Your task to perform on an android device: open sync settings in chrome Image 0: 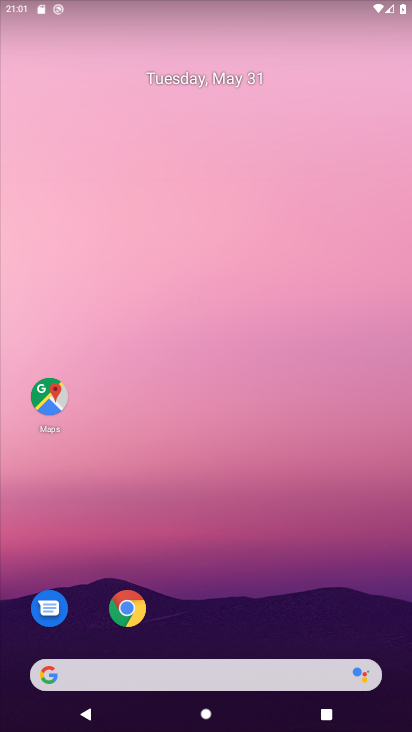
Step 0: click (128, 608)
Your task to perform on an android device: open sync settings in chrome Image 1: 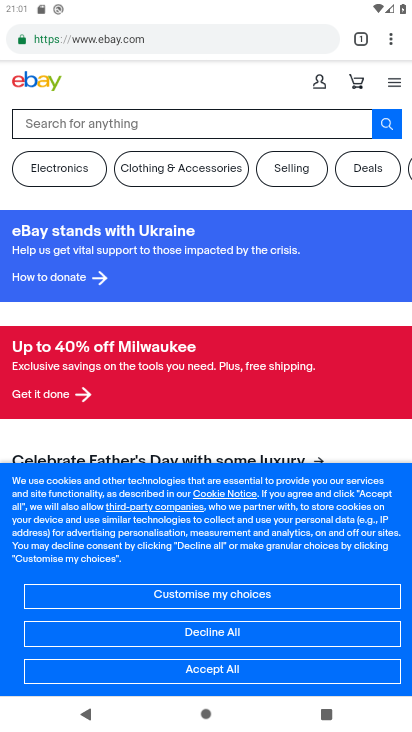
Step 1: click (391, 39)
Your task to perform on an android device: open sync settings in chrome Image 2: 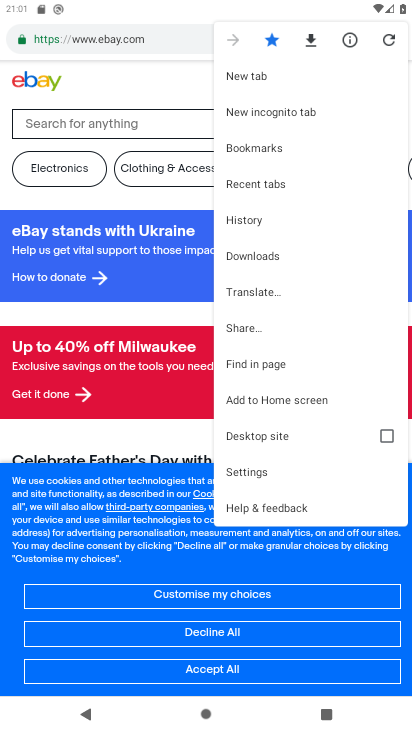
Step 2: click (253, 478)
Your task to perform on an android device: open sync settings in chrome Image 3: 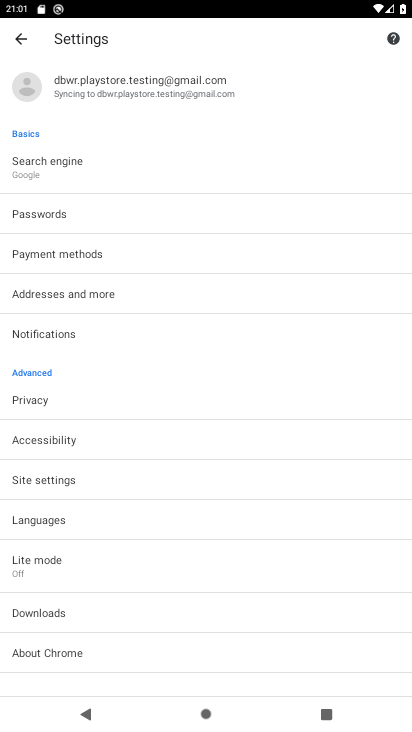
Step 3: click (50, 482)
Your task to perform on an android device: open sync settings in chrome Image 4: 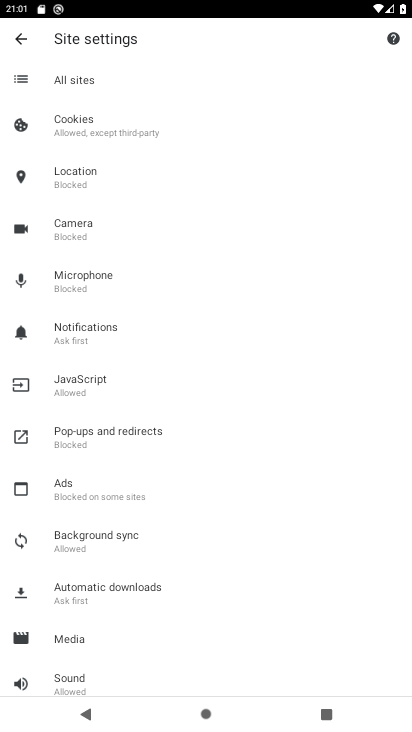
Step 4: click (102, 532)
Your task to perform on an android device: open sync settings in chrome Image 5: 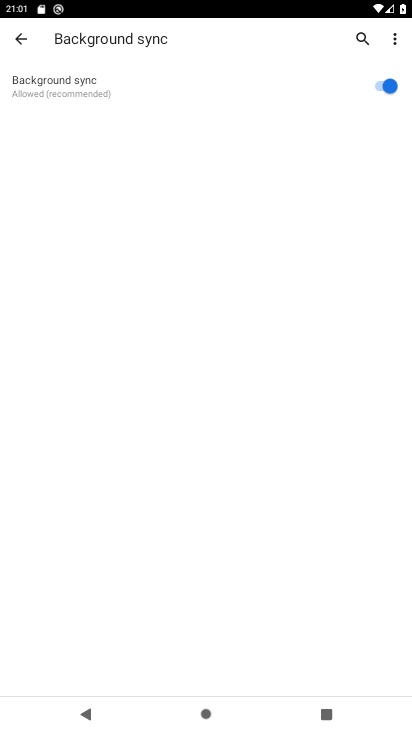
Step 5: task complete